Your task to perform on an android device: Open ESPN.com Image 0: 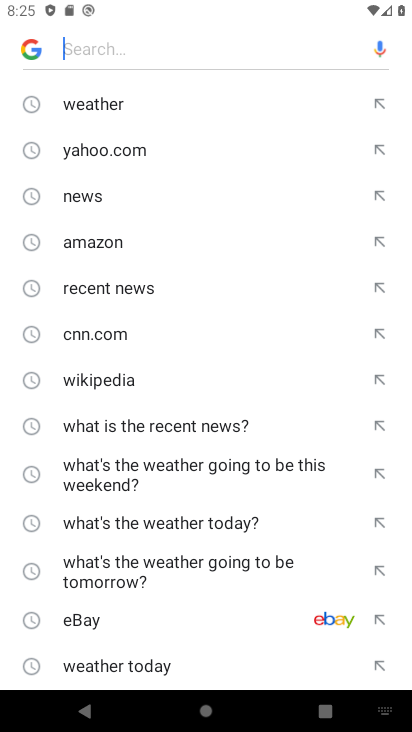
Step 0: press home button
Your task to perform on an android device: Open ESPN.com Image 1: 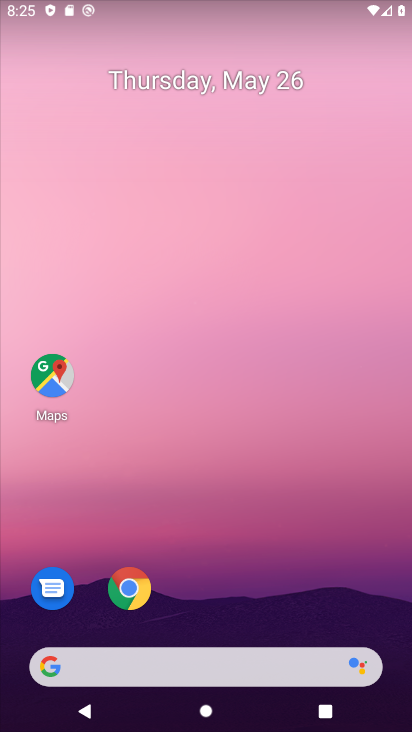
Step 1: click (130, 581)
Your task to perform on an android device: Open ESPN.com Image 2: 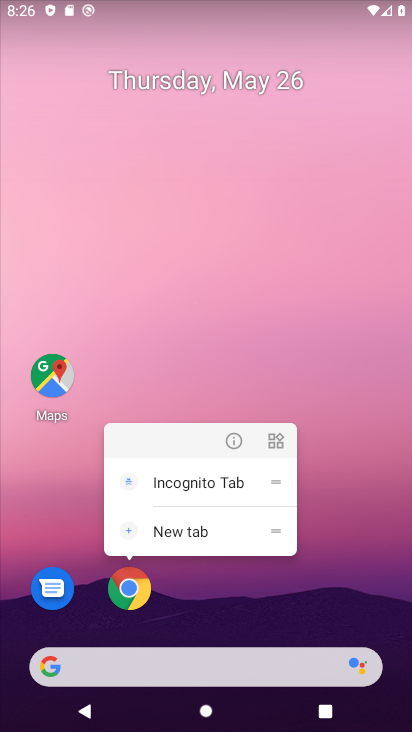
Step 2: click (138, 585)
Your task to perform on an android device: Open ESPN.com Image 3: 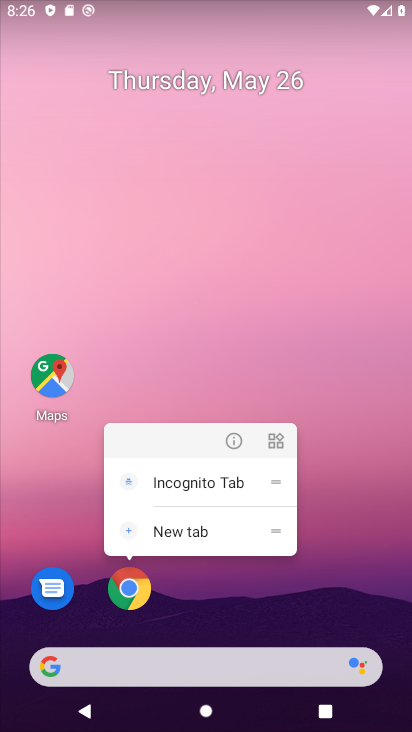
Step 3: click (138, 585)
Your task to perform on an android device: Open ESPN.com Image 4: 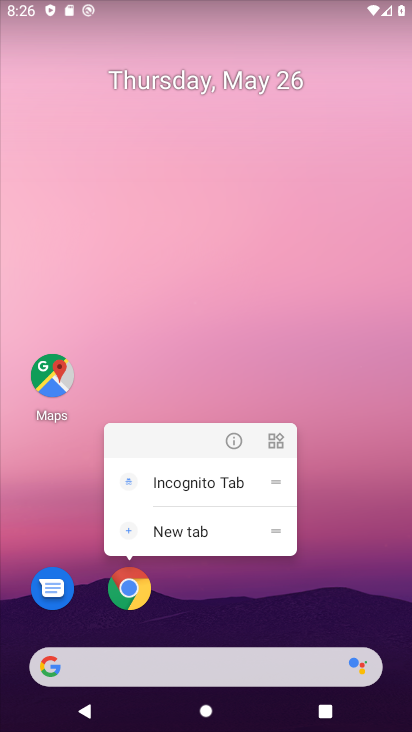
Step 4: click (129, 586)
Your task to perform on an android device: Open ESPN.com Image 5: 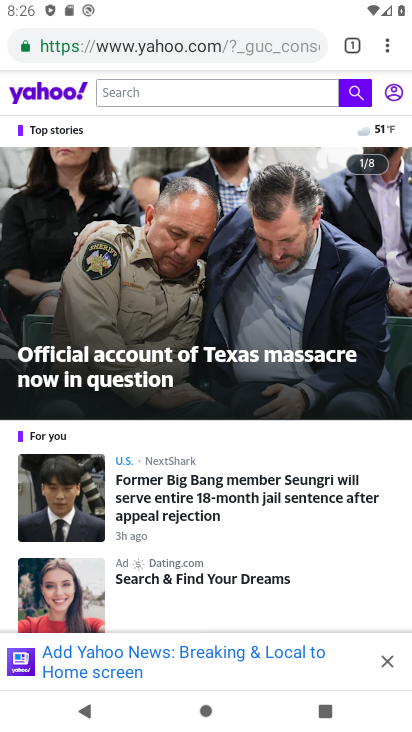
Step 5: click (179, 36)
Your task to perform on an android device: Open ESPN.com Image 6: 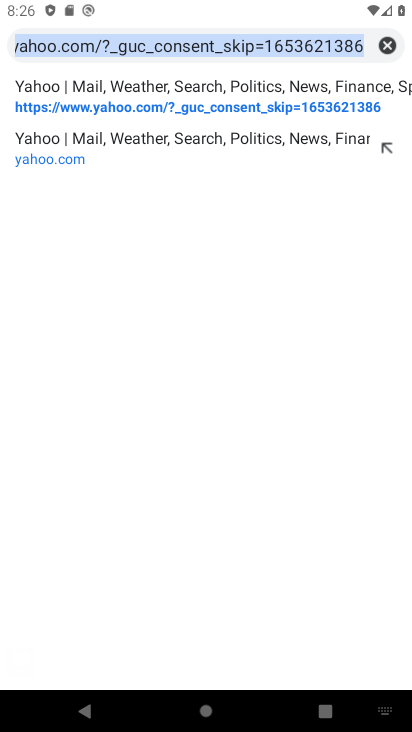
Step 6: type "ESPN"
Your task to perform on an android device: Open ESPN.com Image 7: 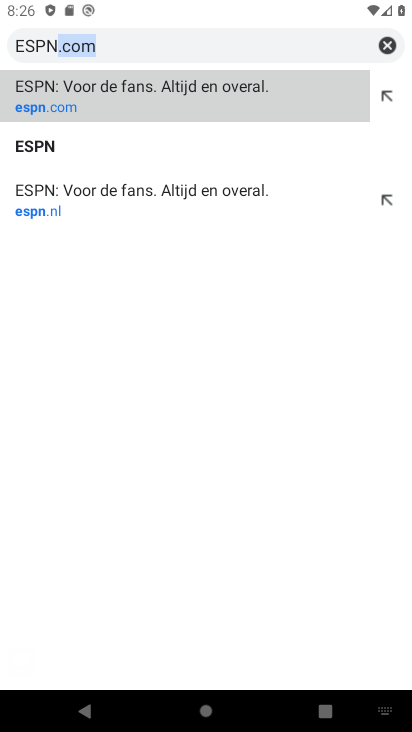
Step 7: click (82, 99)
Your task to perform on an android device: Open ESPN.com Image 8: 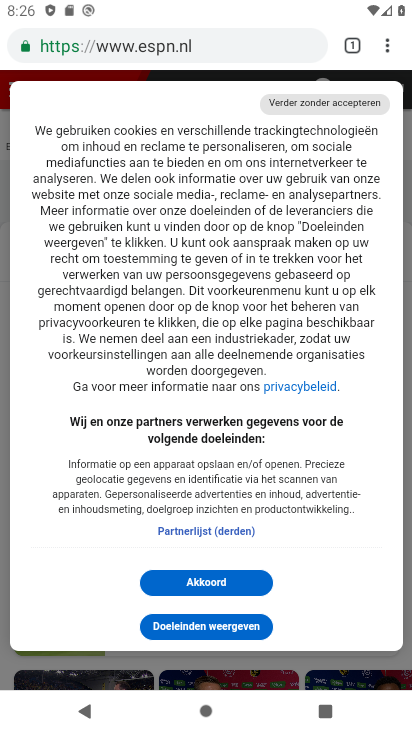
Step 8: task complete